Your task to perform on an android device: Go to Reddit.com Image 0: 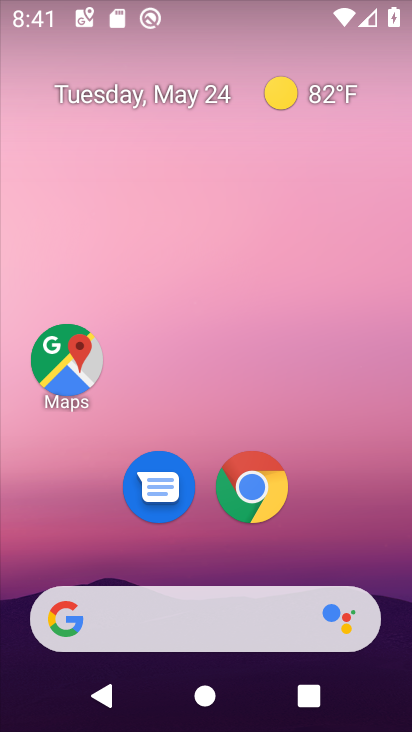
Step 0: drag from (353, 470) to (375, 139)
Your task to perform on an android device: Go to Reddit.com Image 1: 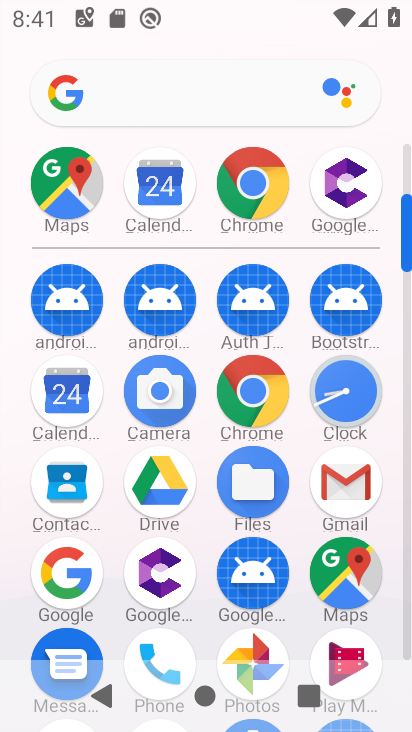
Step 1: click (254, 194)
Your task to perform on an android device: Go to Reddit.com Image 2: 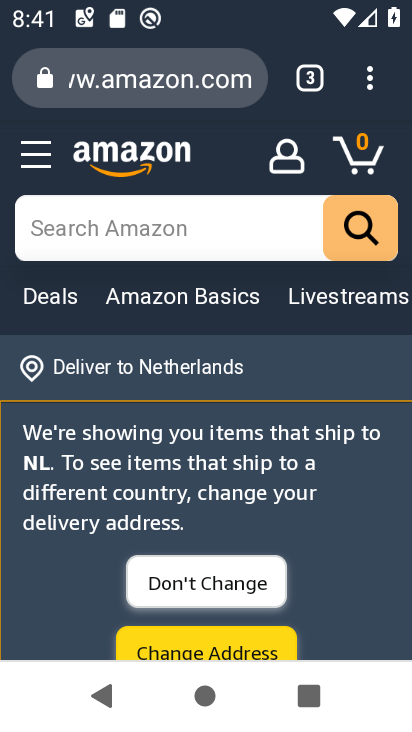
Step 2: click (131, 95)
Your task to perform on an android device: Go to Reddit.com Image 3: 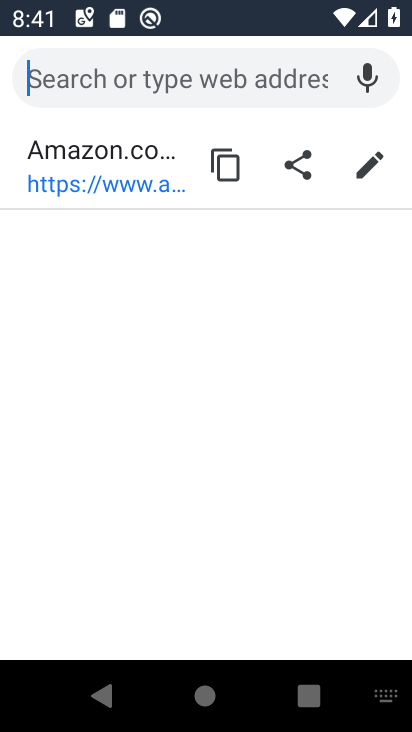
Step 3: type "reddit.com"
Your task to perform on an android device: Go to Reddit.com Image 4: 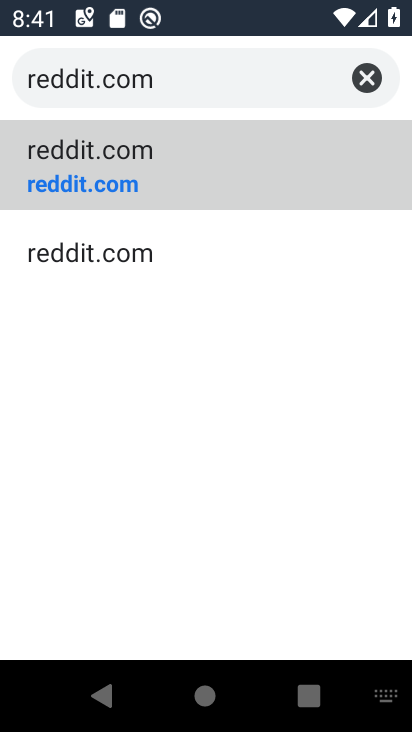
Step 4: click (147, 180)
Your task to perform on an android device: Go to Reddit.com Image 5: 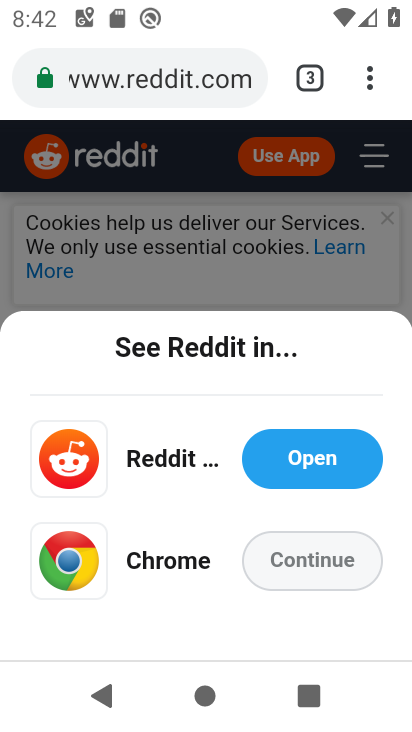
Step 5: task complete